Your task to perform on an android device: Do I have any events tomorrow? Image 0: 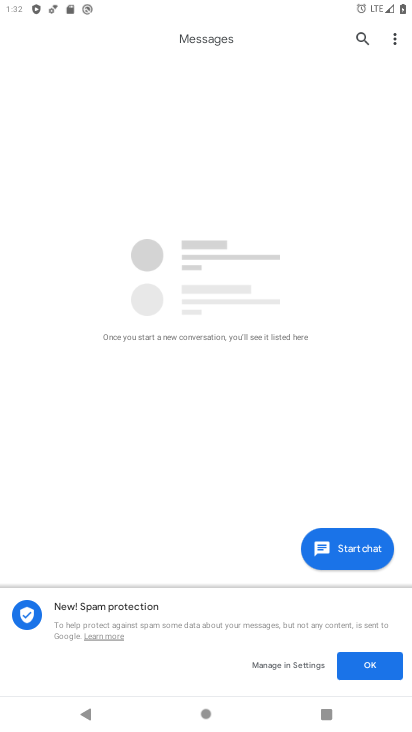
Step 0: press home button
Your task to perform on an android device: Do I have any events tomorrow? Image 1: 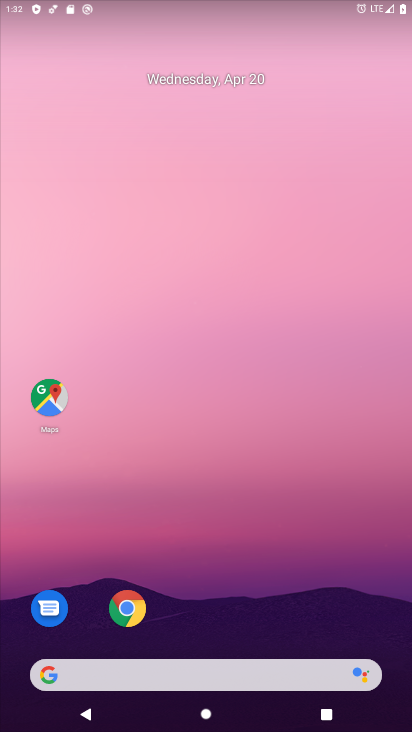
Step 1: drag from (208, 729) to (168, 117)
Your task to perform on an android device: Do I have any events tomorrow? Image 2: 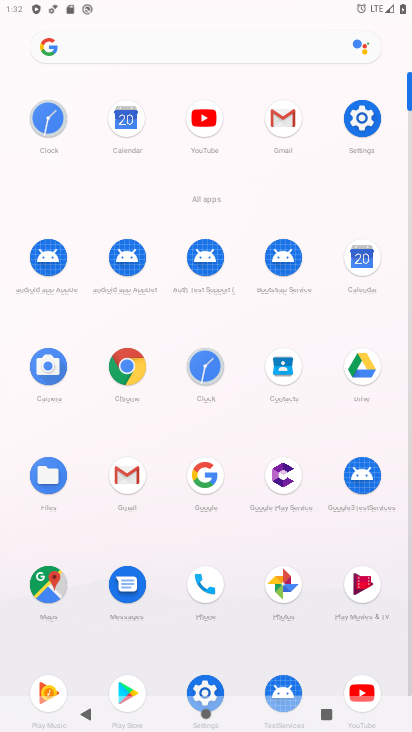
Step 2: click (364, 259)
Your task to perform on an android device: Do I have any events tomorrow? Image 3: 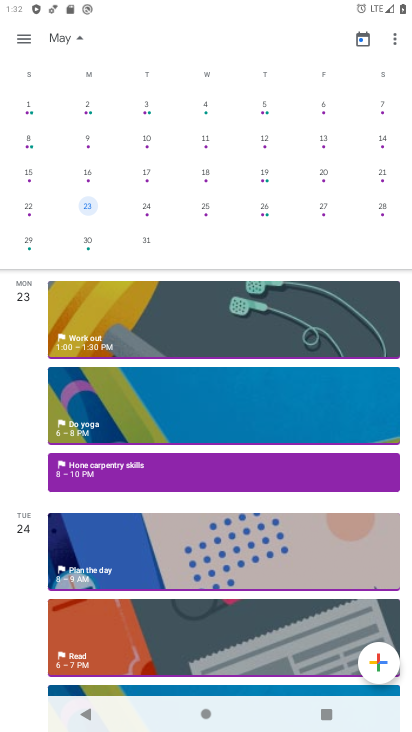
Step 3: drag from (56, 153) to (357, 166)
Your task to perform on an android device: Do I have any events tomorrow? Image 4: 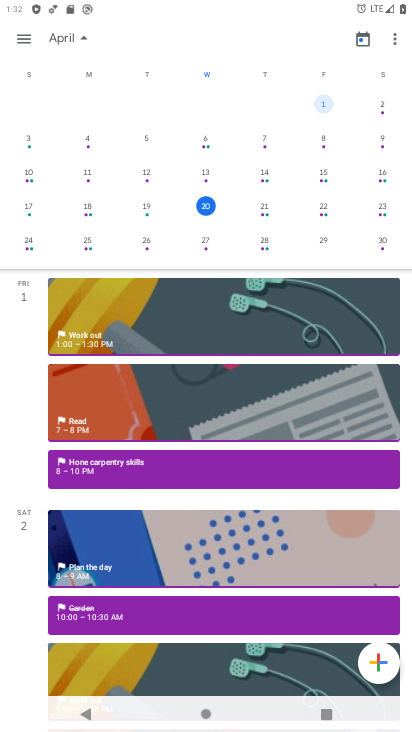
Step 4: click (266, 205)
Your task to perform on an android device: Do I have any events tomorrow? Image 5: 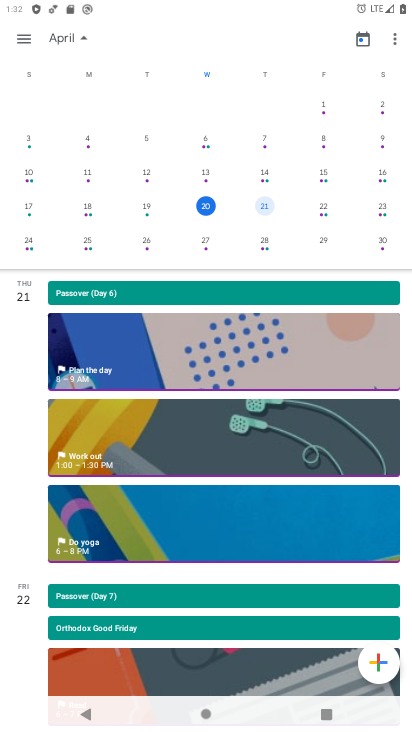
Step 5: task complete